Your task to perform on an android device: turn vacation reply on in the gmail app Image 0: 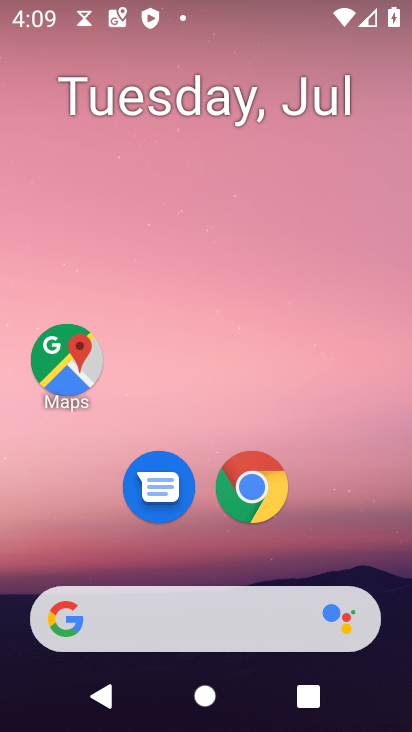
Step 0: drag from (142, 536) to (215, 0)
Your task to perform on an android device: turn vacation reply on in the gmail app Image 1: 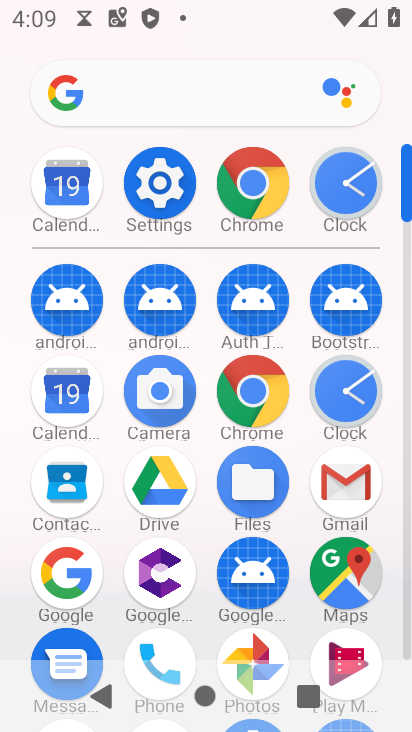
Step 1: click (352, 480)
Your task to perform on an android device: turn vacation reply on in the gmail app Image 2: 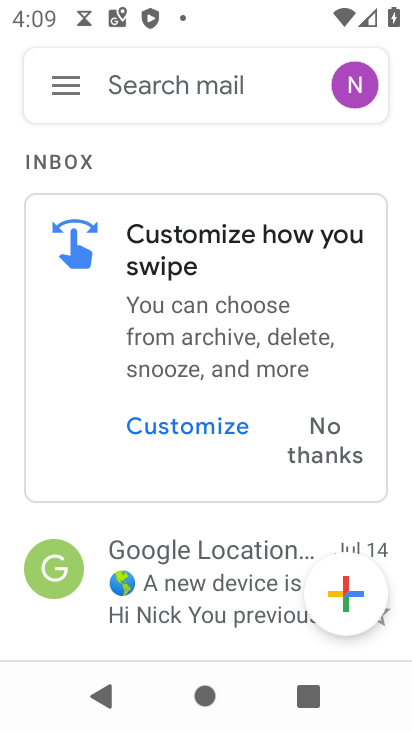
Step 2: click (53, 85)
Your task to perform on an android device: turn vacation reply on in the gmail app Image 3: 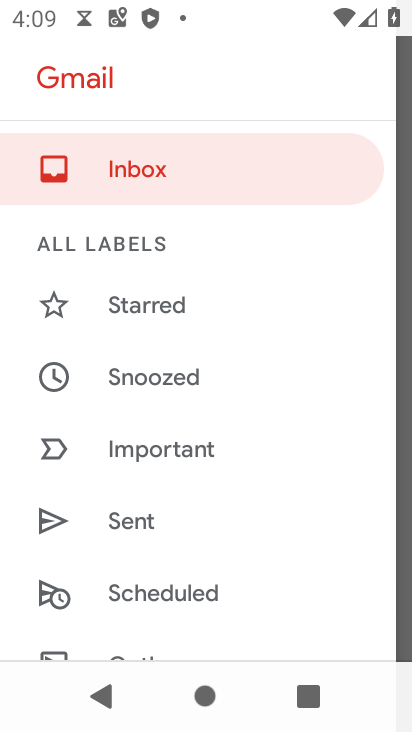
Step 3: drag from (185, 585) to (252, 27)
Your task to perform on an android device: turn vacation reply on in the gmail app Image 4: 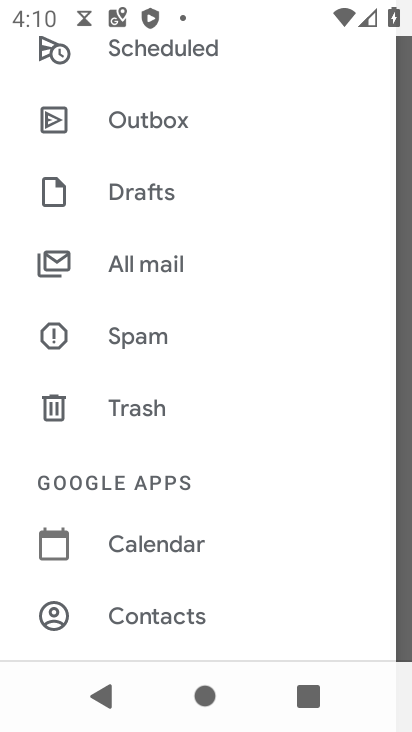
Step 4: drag from (152, 615) to (276, 21)
Your task to perform on an android device: turn vacation reply on in the gmail app Image 5: 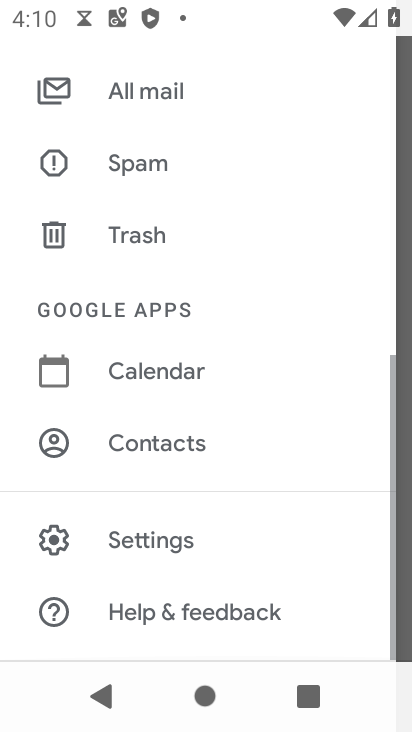
Step 5: click (170, 542)
Your task to perform on an android device: turn vacation reply on in the gmail app Image 6: 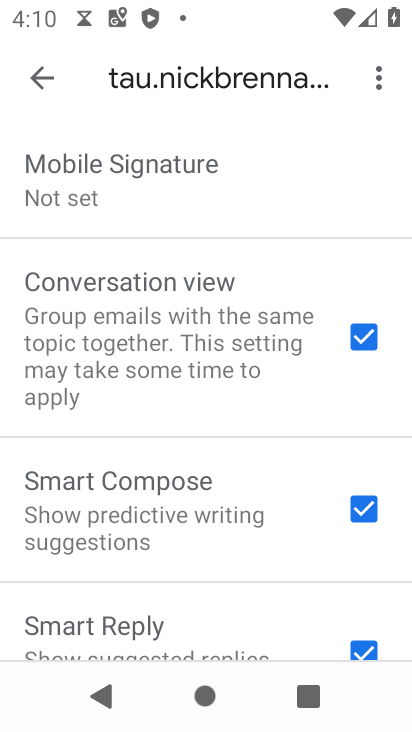
Step 6: drag from (154, 556) to (246, 86)
Your task to perform on an android device: turn vacation reply on in the gmail app Image 7: 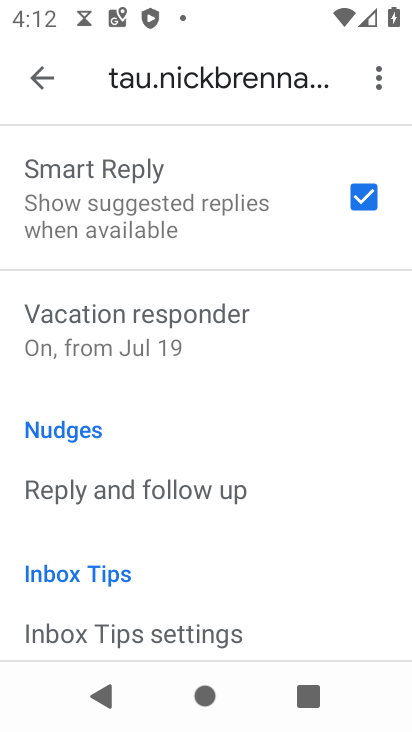
Step 7: click (158, 336)
Your task to perform on an android device: turn vacation reply on in the gmail app Image 8: 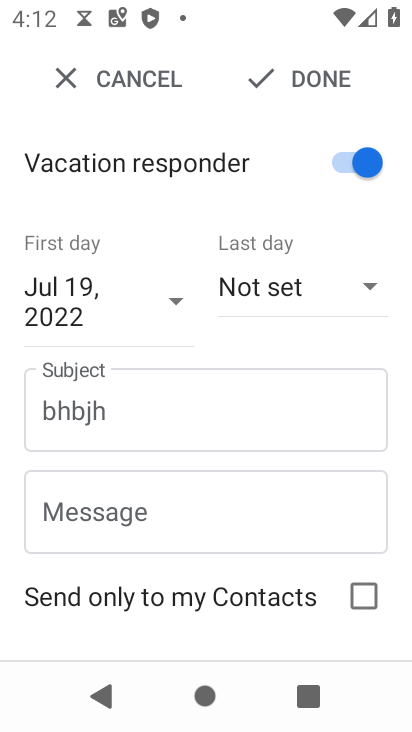
Step 8: task complete